Your task to perform on an android device: Clear all items from cart on newegg.com. Search for "usb-c to usb-a" on newegg.com, select the first entry, add it to the cart, then select checkout. Image 0: 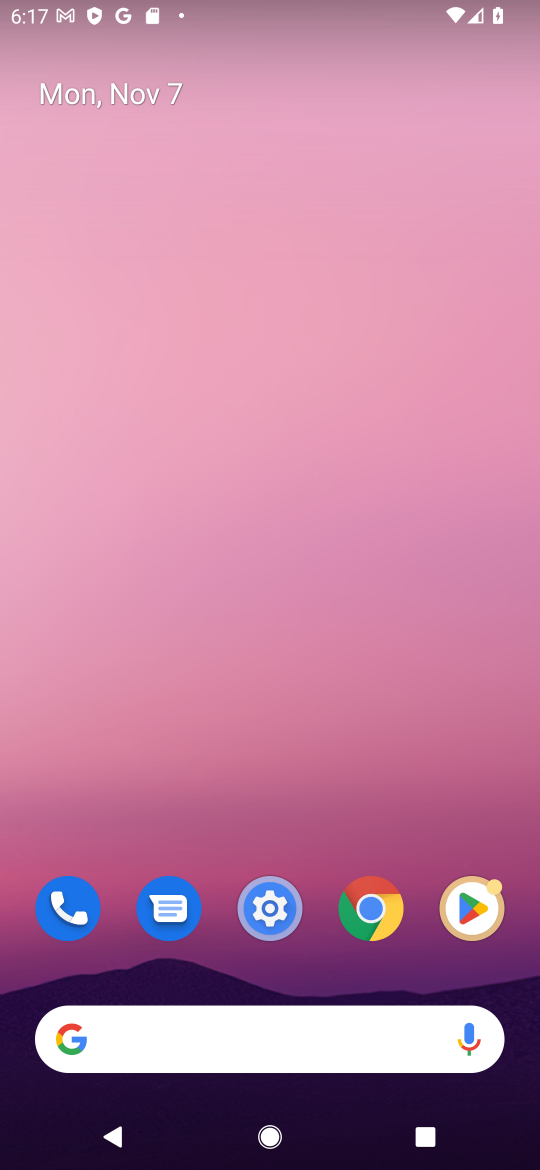
Step 0: click (288, 1046)
Your task to perform on an android device: Clear all items from cart on newegg.com. Search for "usb-c to usb-a" on newegg.com, select the first entry, add it to the cart, then select checkout. Image 1: 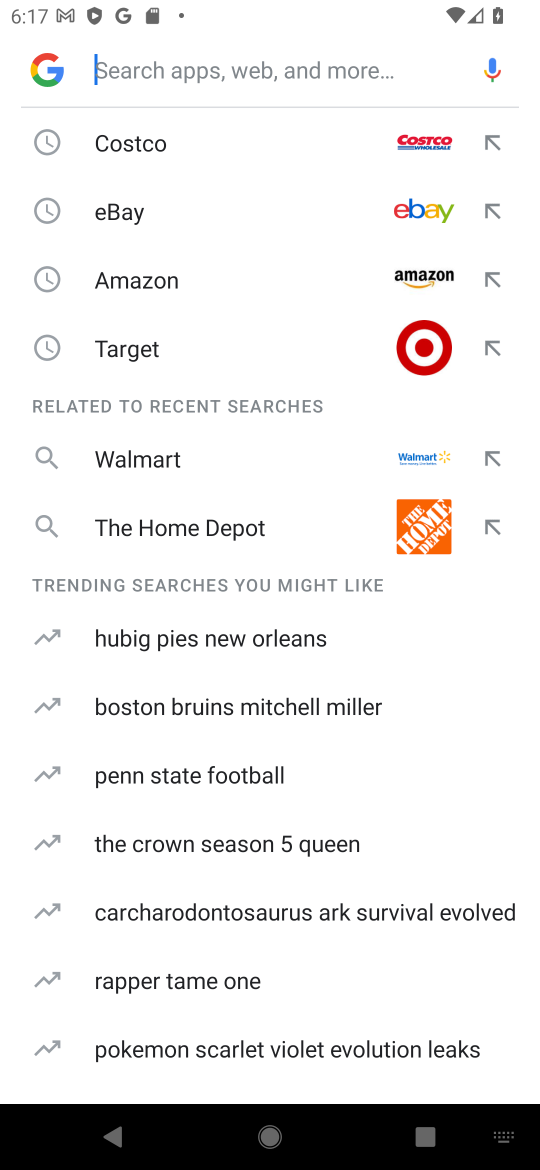
Step 1: type "newegg"
Your task to perform on an android device: Clear all items from cart on newegg.com. Search for "usb-c to usb-a" on newegg.com, select the first entry, add it to the cart, then select checkout. Image 2: 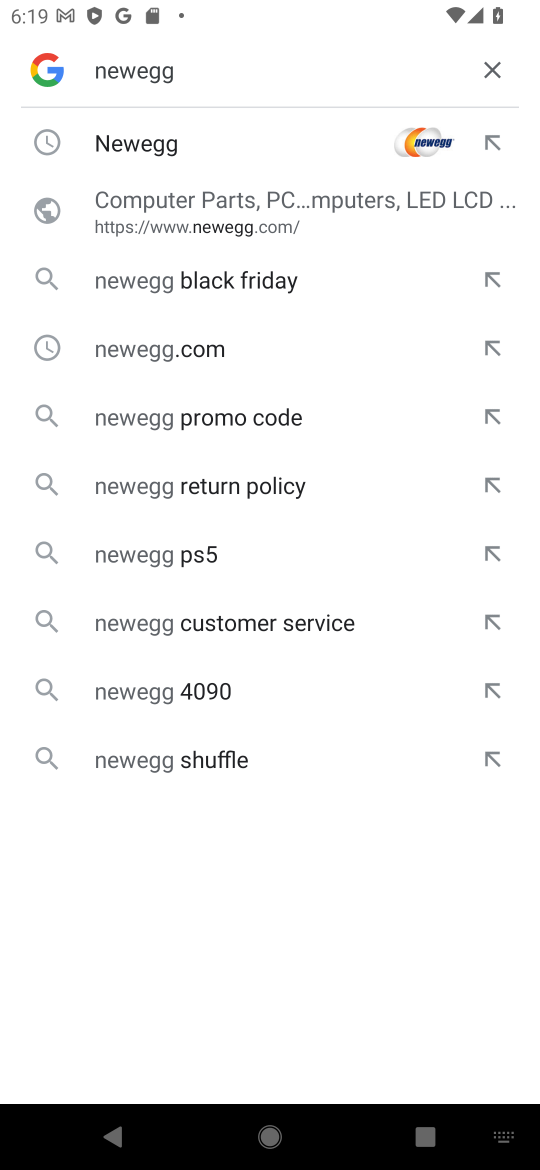
Step 2: click (265, 155)
Your task to perform on an android device: Clear all items from cart on newegg.com. Search for "usb-c to usb-a" on newegg.com, select the first entry, add it to the cart, then select checkout. Image 3: 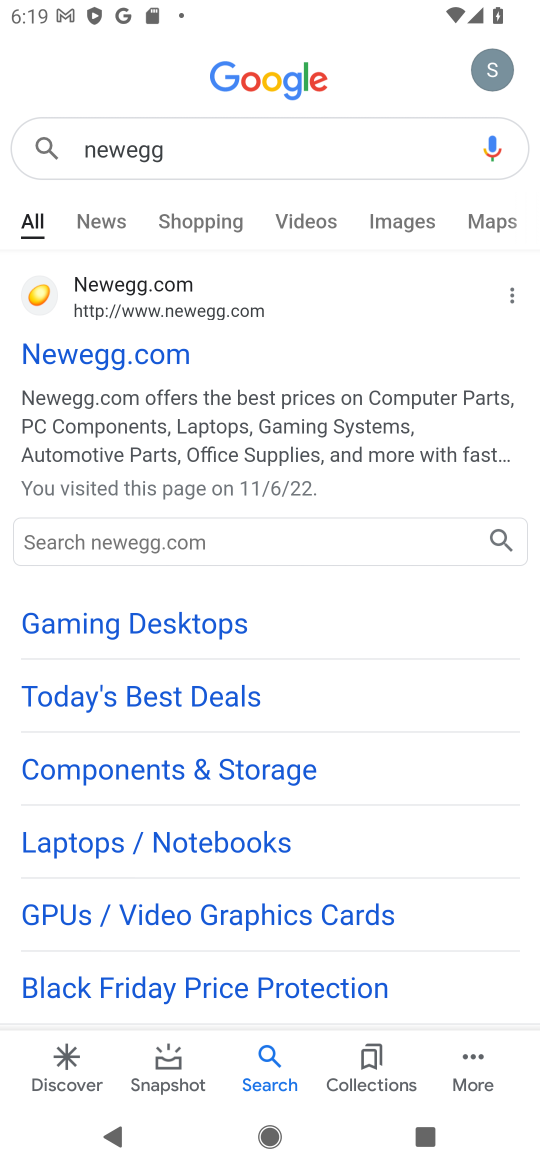
Step 3: click (56, 356)
Your task to perform on an android device: Clear all items from cart on newegg.com. Search for "usb-c to usb-a" on newegg.com, select the first entry, add it to the cart, then select checkout. Image 4: 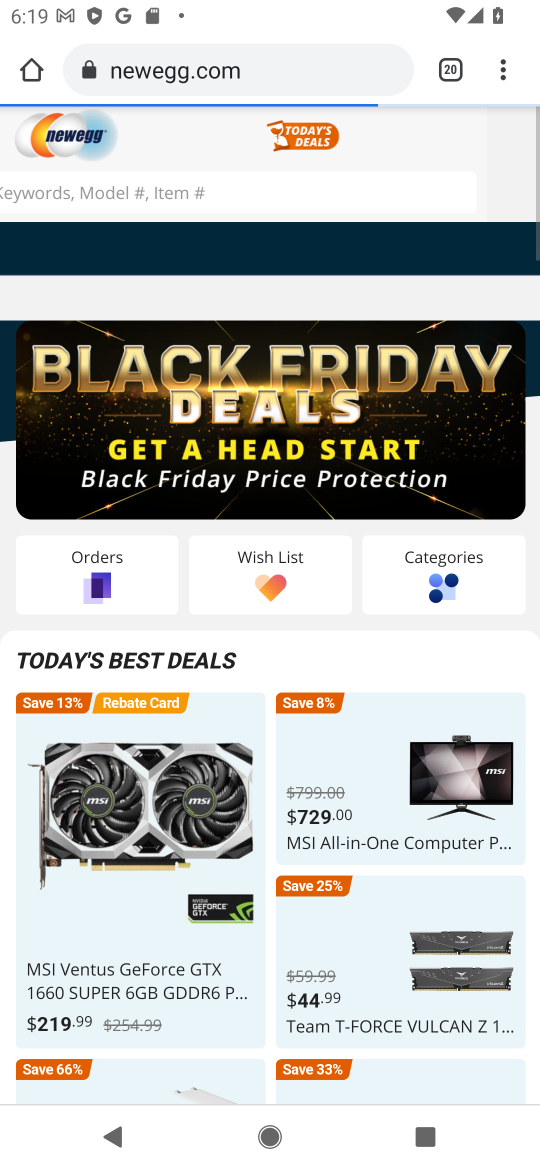
Step 4: task complete